Your task to perform on an android device: turn on sleep mode Image 0: 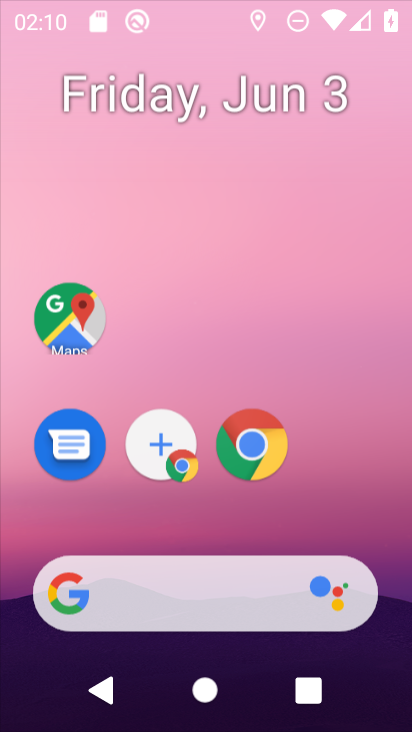
Step 0: click (322, 430)
Your task to perform on an android device: turn on sleep mode Image 1: 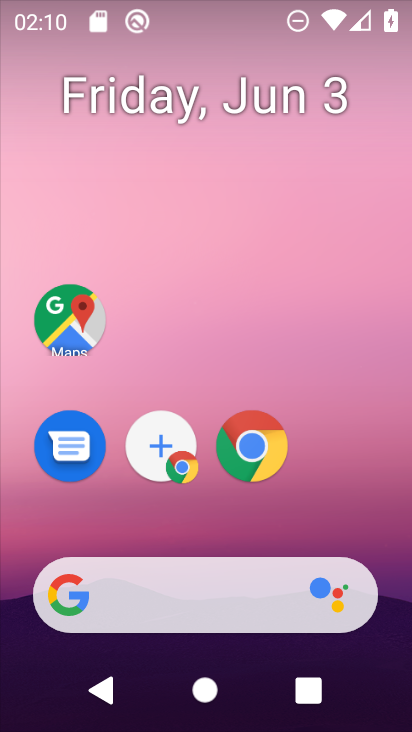
Step 1: drag from (267, 674) to (409, 219)
Your task to perform on an android device: turn on sleep mode Image 2: 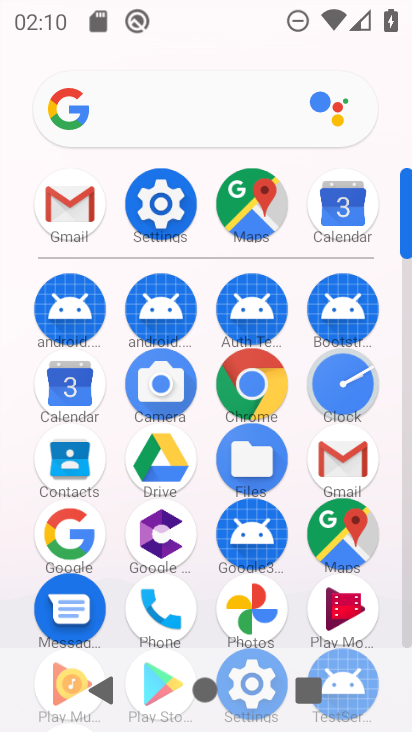
Step 2: click (187, 257)
Your task to perform on an android device: turn on sleep mode Image 3: 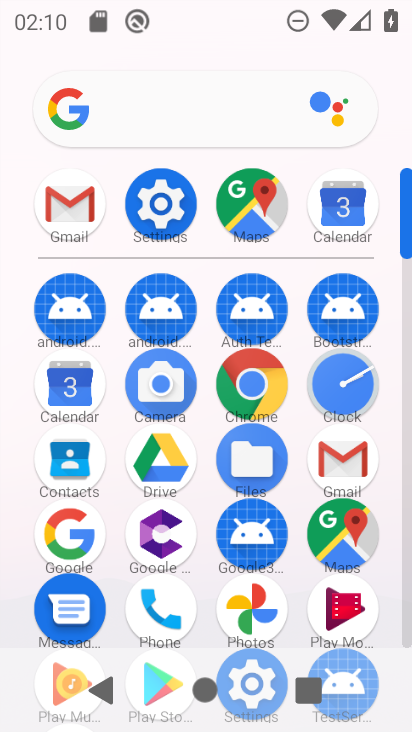
Step 3: click (142, 174)
Your task to perform on an android device: turn on sleep mode Image 4: 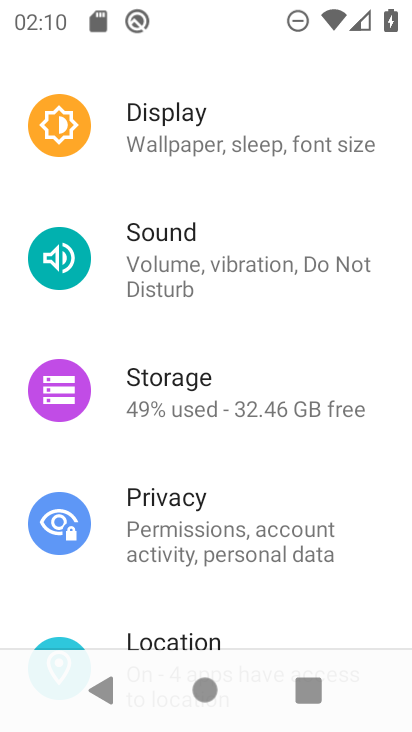
Step 4: click (244, 138)
Your task to perform on an android device: turn on sleep mode Image 5: 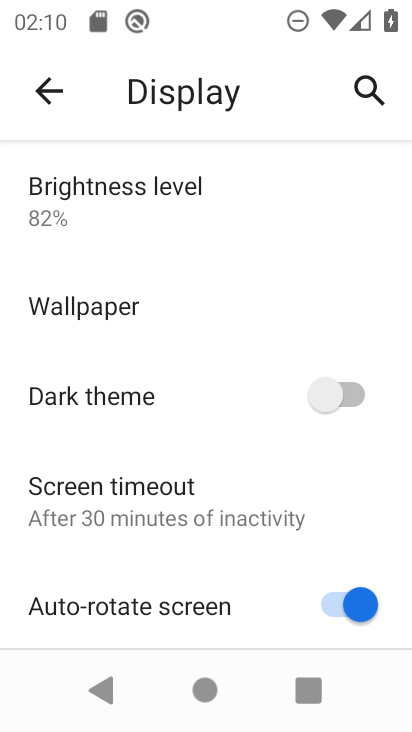
Step 5: task complete